Your task to perform on an android device: make emails show in primary in the gmail app Image 0: 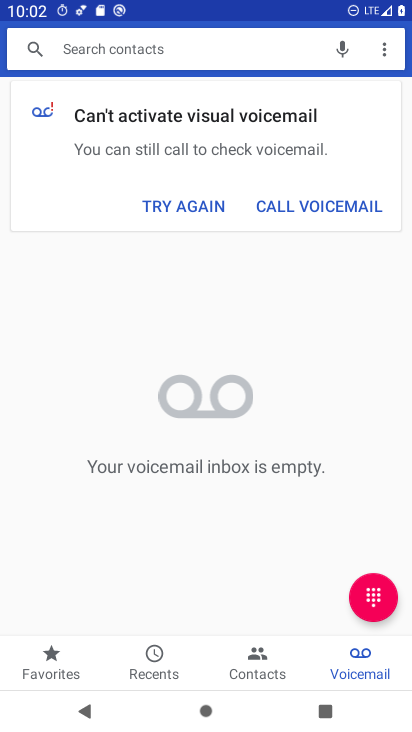
Step 0: press home button
Your task to perform on an android device: make emails show in primary in the gmail app Image 1: 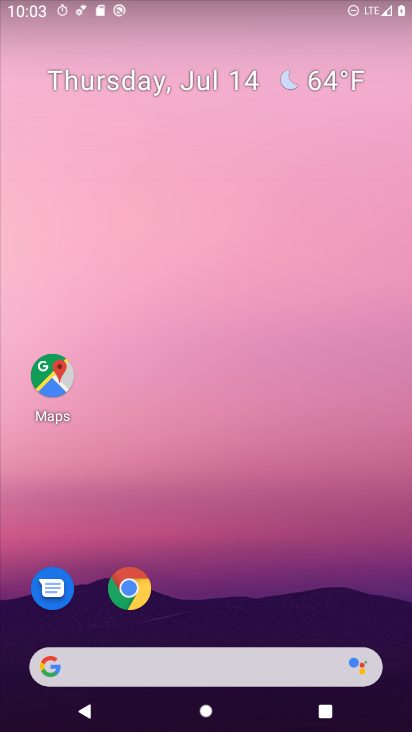
Step 1: drag from (308, 567) to (360, 129)
Your task to perform on an android device: make emails show in primary in the gmail app Image 2: 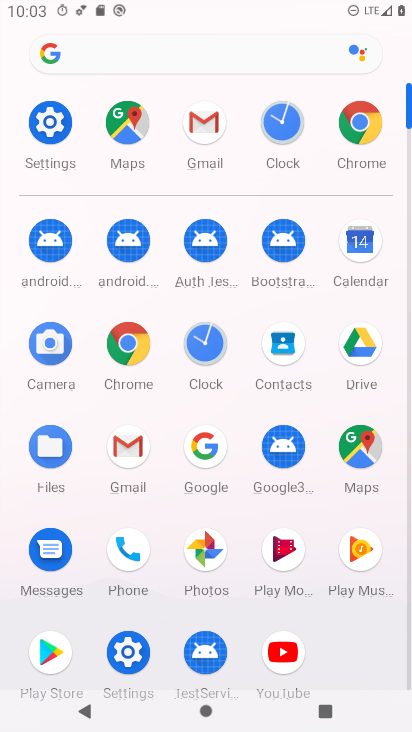
Step 2: click (209, 131)
Your task to perform on an android device: make emails show in primary in the gmail app Image 3: 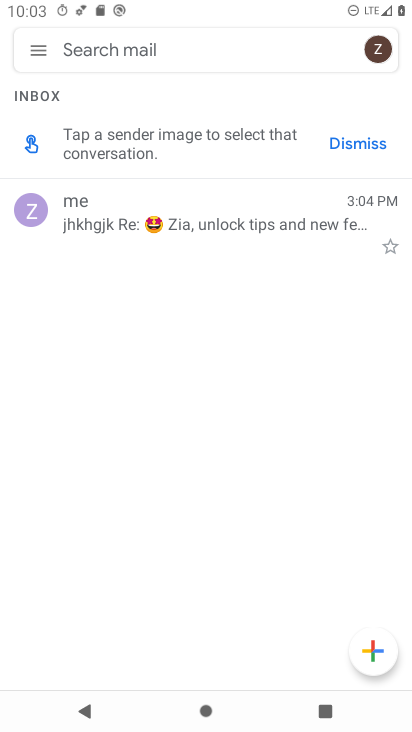
Step 3: click (41, 47)
Your task to perform on an android device: make emails show in primary in the gmail app Image 4: 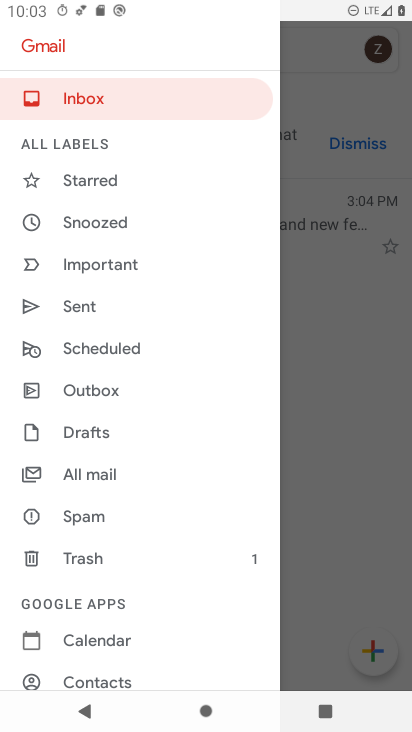
Step 4: drag from (208, 395) to (214, 327)
Your task to perform on an android device: make emails show in primary in the gmail app Image 5: 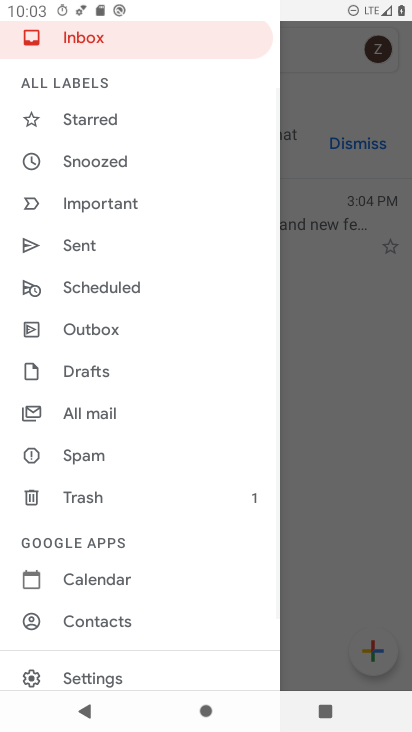
Step 5: drag from (187, 416) to (186, 350)
Your task to perform on an android device: make emails show in primary in the gmail app Image 6: 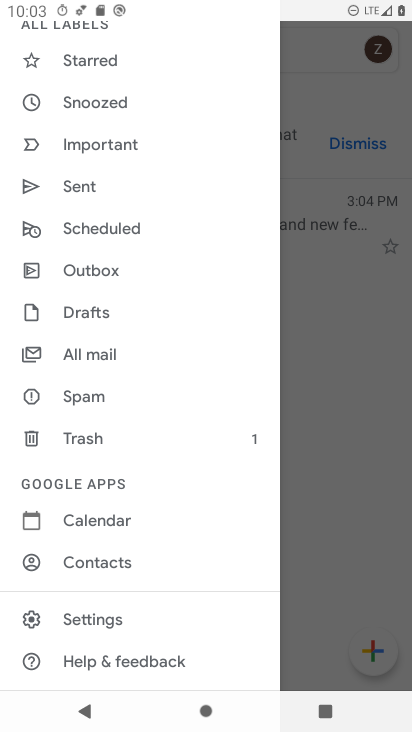
Step 6: drag from (188, 425) to (189, 347)
Your task to perform on an android device: make emails show in primary in the gmail app Image 7: 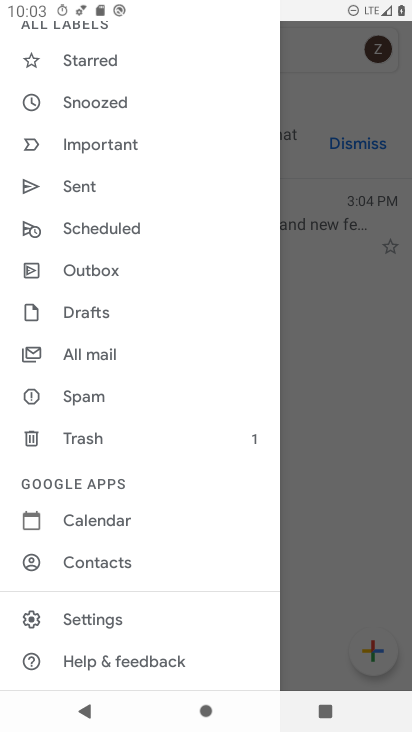
Step 7: click (185, 623)
Your task to perform on an android device: make emails show in primary in the gmail app Image 8: 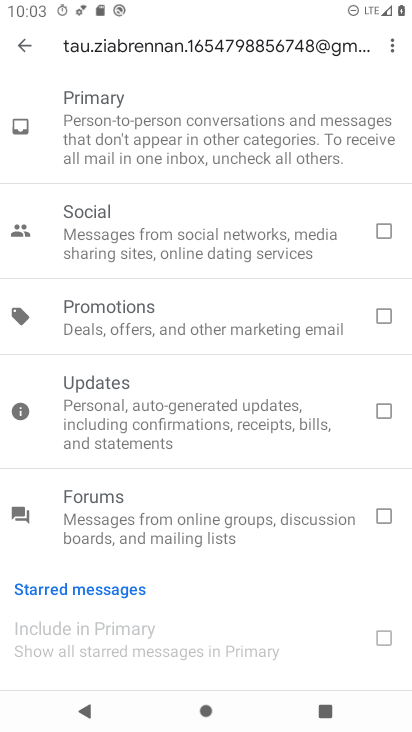
Step 8: task complete